Your task to perform on an android device: turn off priority inbox in the gmail app Image 0: 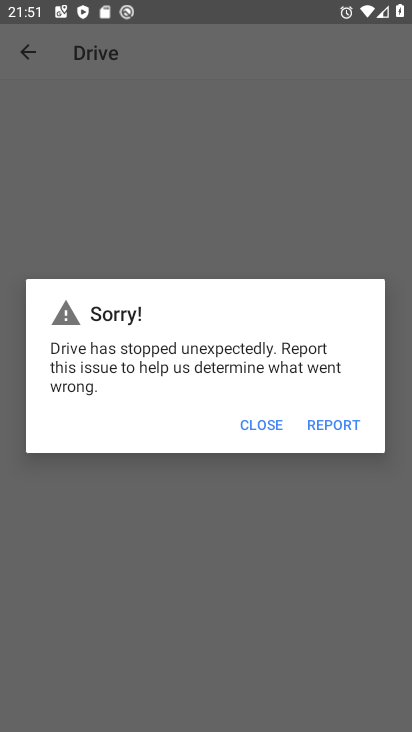
Step 0: press home button
Your task to perform on an android device: turn off priority inbox in the gmail app Image 1: 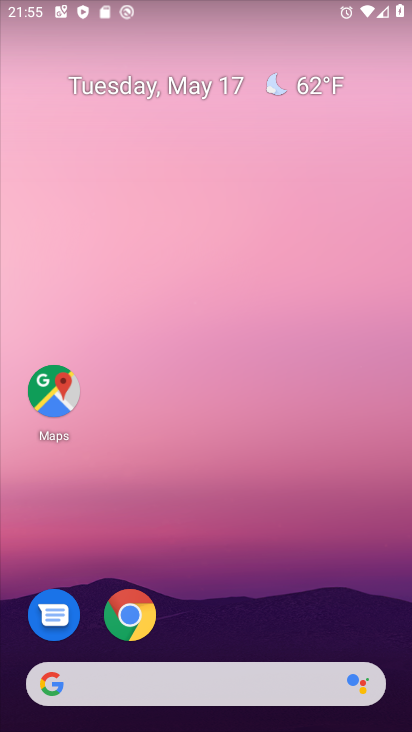
Step 1: click (104, 615)
Your task to perform on an android device: turn off priority inbox in the gmail app Image 2: 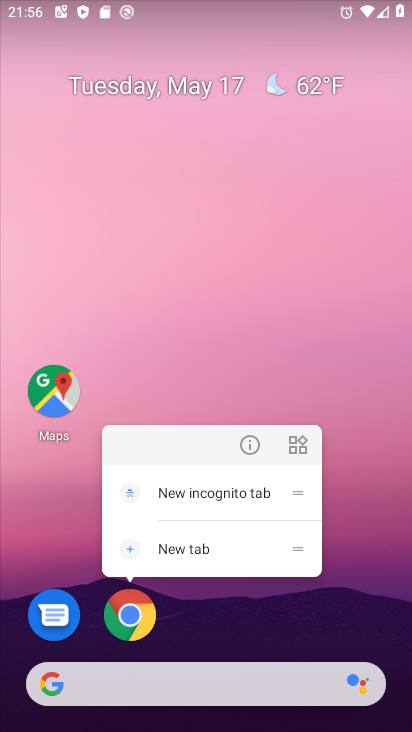
Step 2: click (131, 621)
Your task to perform on an android device: turn off priority inbox in the gmail app Image 3: 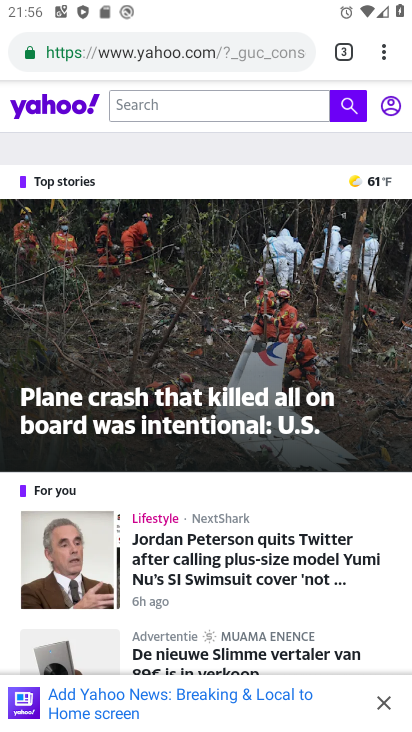
Step 3: press home button
Your task to perform on an android device: turn off priority inbox in the gmail app Image 4: 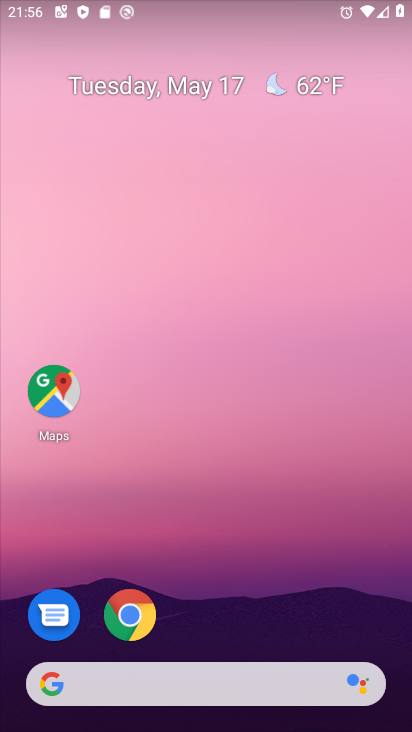
Step 4: drag from (232, 556) to (276, 2)
Your task to perform on an android device: turn off priority inbox in the gmail app Image 5: 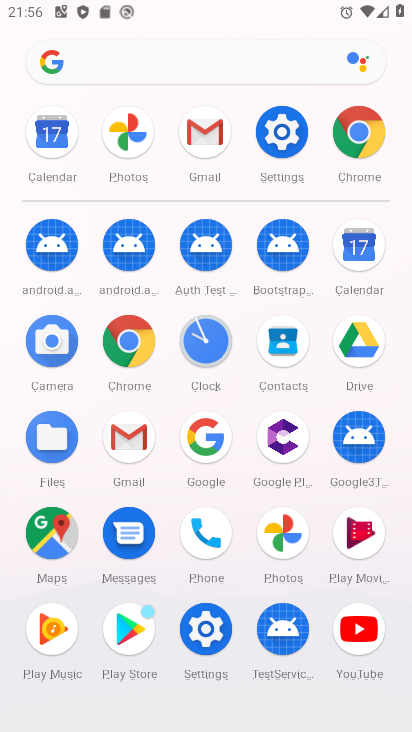
Step 5: click (216, 163)
Your task to perform on an android device: turn off priority inbox in the gmail app Image 6: 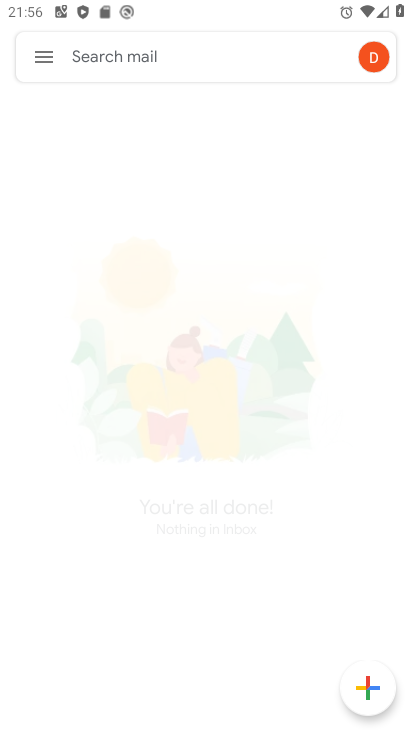
Step 6: click (28, 47)
Your task to perform on an android device: turn off priority inbox in the gmail app Image 7: 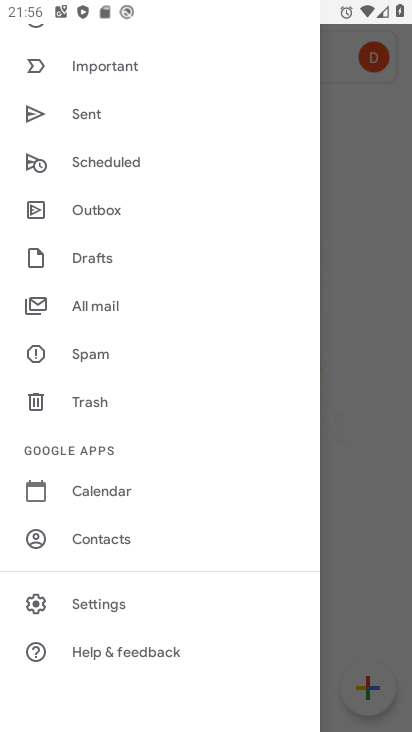
Step 7: click (85, 608)
Your task to perform on an android device: turn off priority inbox in the gmail app Image 8: 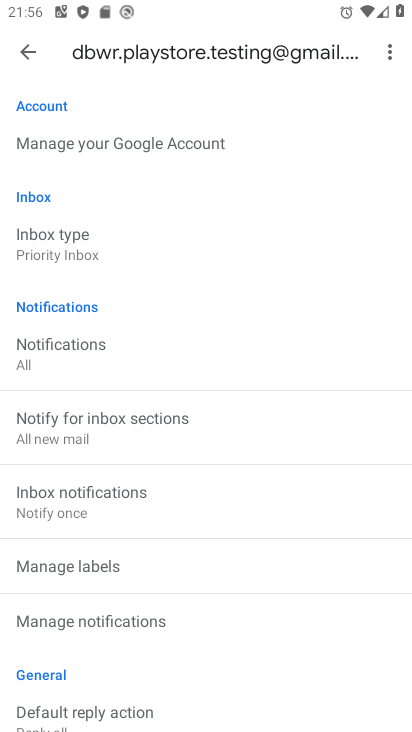
Step 8: click (116, 237)
Your task to perform on an android device: turn off priority inbox in the gmail app Image 9: 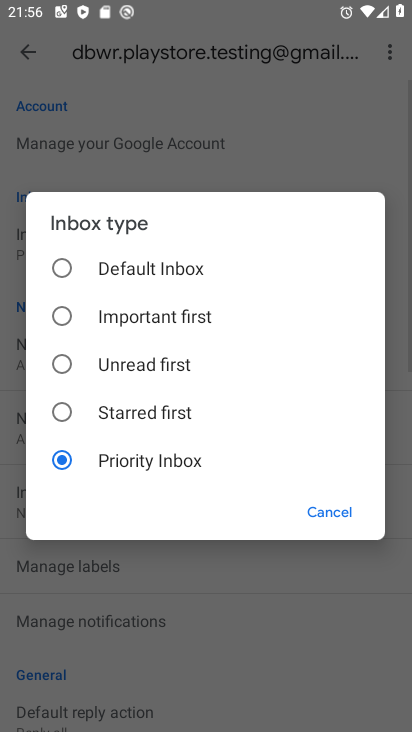
Step 9: click (89, 284)
Your task to perform on an android device: turn off priority inbox in the gmail app Image 10: 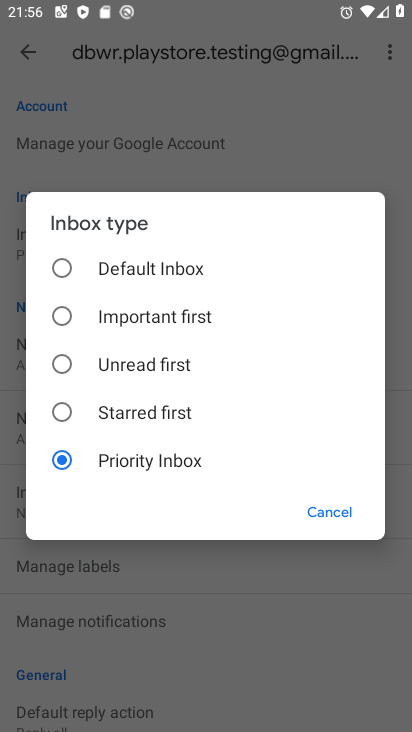
Step 10: click (98, 271)
Your task to perform on an android device: turn off priority inbox in the gmail app Image 11: 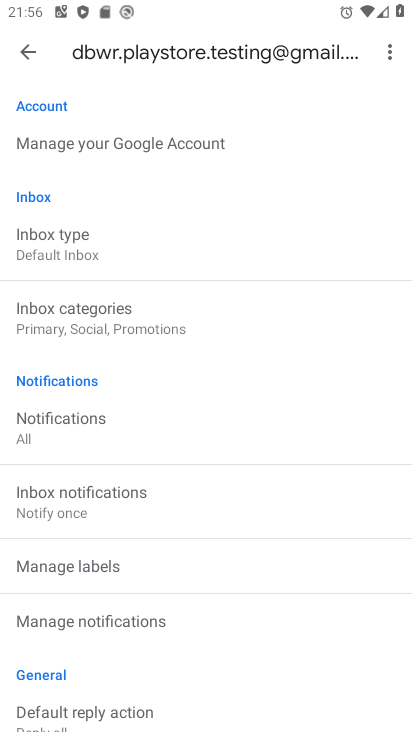
Step 11: task complete